Your task to perform on an android device: Open Google Maps and go to "Timeline" Image 0: 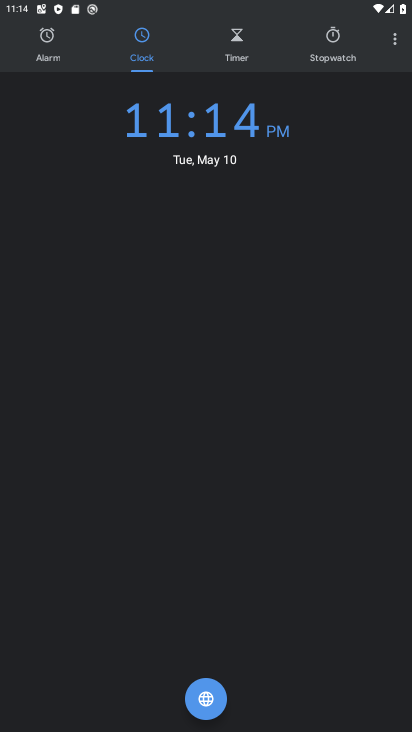
Step 0: press home button
Your task to perform on an android device: Open Google Maps and go to "Timeline" Image 1: 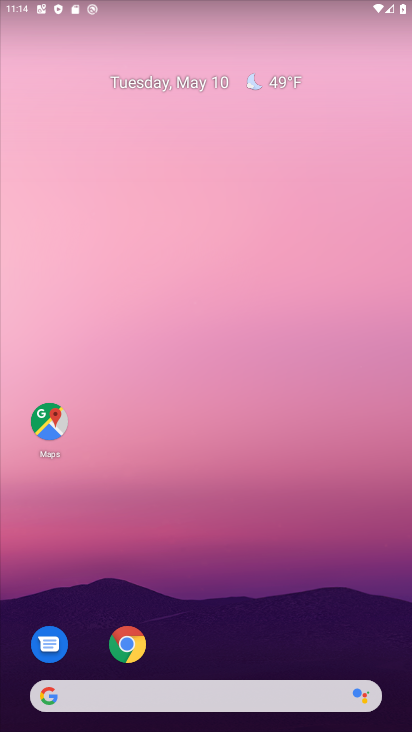
Step 1: click (53, 422)
Your task to perform on an android device: Open Google Maps and go to "Timeline" Image 2: 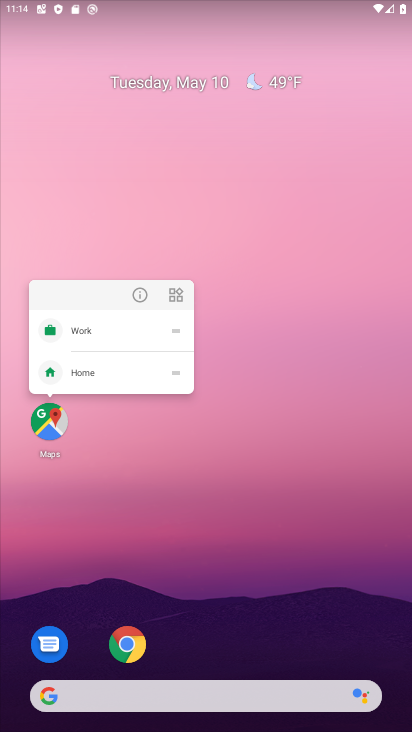
Step 2: click (53, 422)
Your task to perform on an android device: Open Google Maps and go to "Timeline" Image 3: 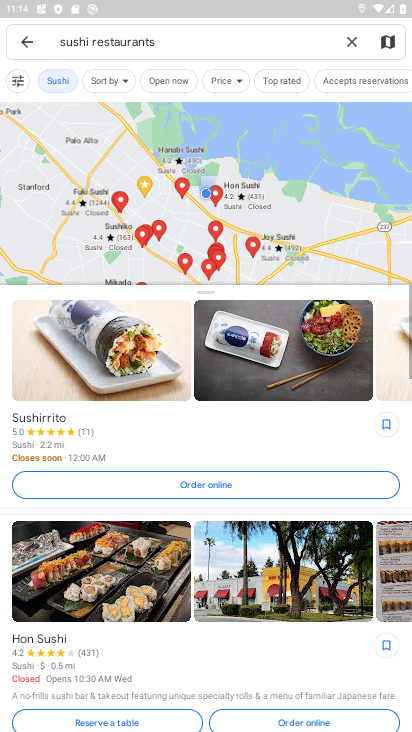
Step 3: click (34, 48)
Your task to perform on an android device: Open Google Maps and go to "Timeline" Image 4: 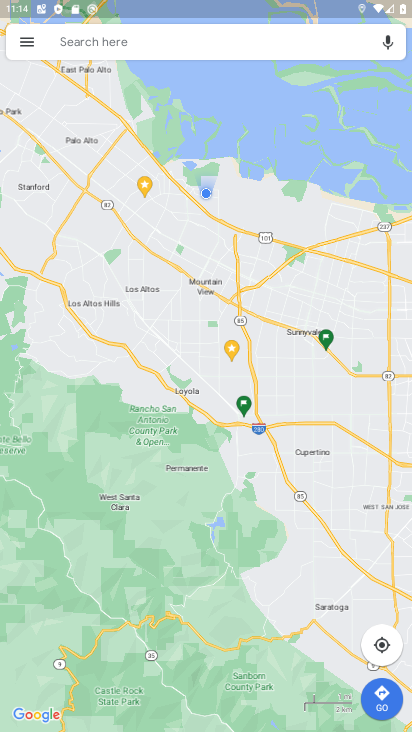
Step 4: click (34, 48)
Your task to perform on an android device: Open Google Maps and go to "Timeline" Image 5: 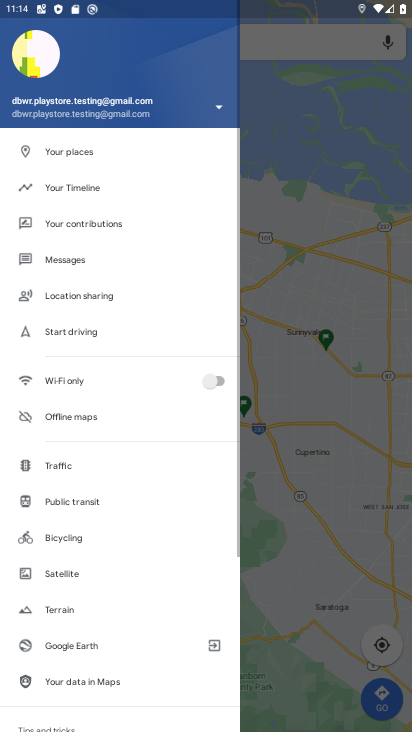
Step 5: click (96, 188)
Your task to perform on an android device: Open Google Maps and go to "Timeline" Image 6: 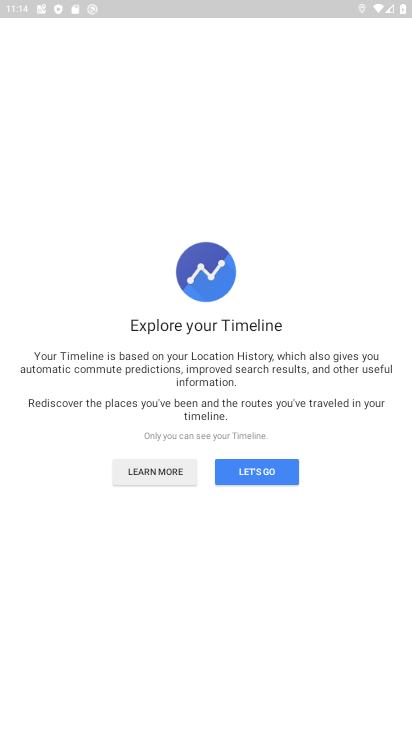
Step 6: click (257, 492)
Your task to perform on an android device: Open Google Maps and go to "Timeline" Image 7: 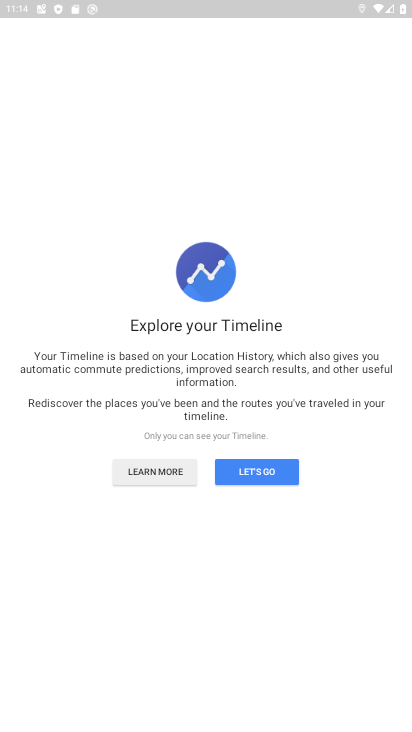
Step 7: click (254, 476)
Your task to perform on an android device: Open Google Maps and go to "Timeline" Image 8: 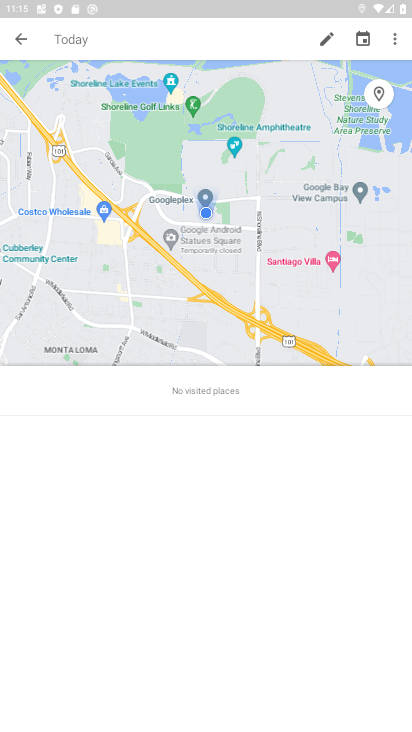
Step 8: task complete